Your task to perform on an android device: Show me popular games on the Play Store Image 0: 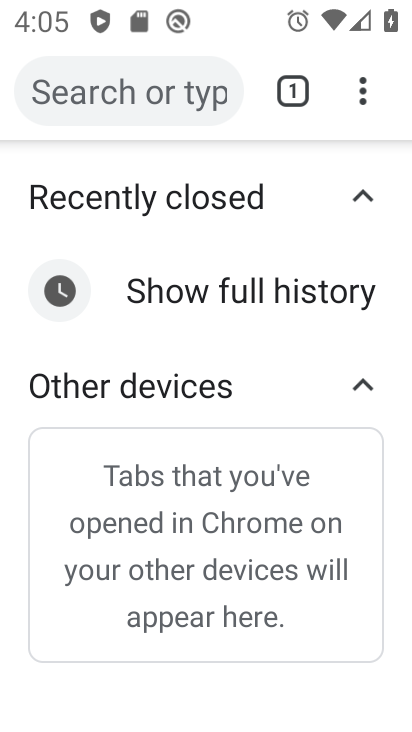
Step 0: press home button
Your task to perform on an android device: Show me popular games on the Play Store Image 1: 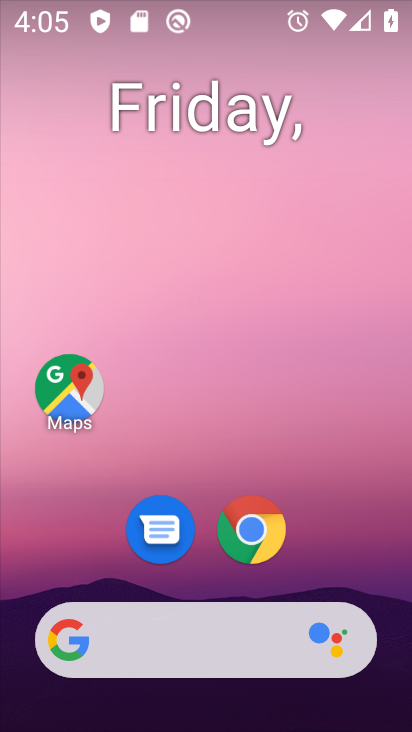
Step 1: drag from (134, 598) to (219, 135)
Your task to perform on an android device: Show me popular games on the Play Store Image 2: 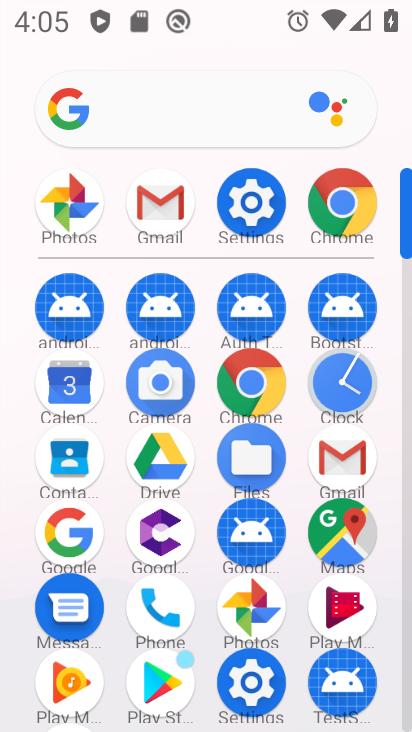
Step 2: drag from (169, 609) to (223, 321)
Your task to perform on an android device: Show me popular games on the Play Store Image 3: 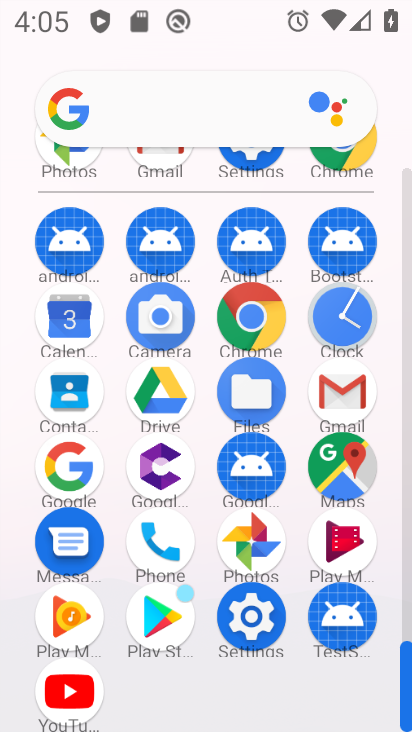
Step 3: click (167, 625)
Your task to perform on an android device: Show me popular games on the Play Store Image 4: 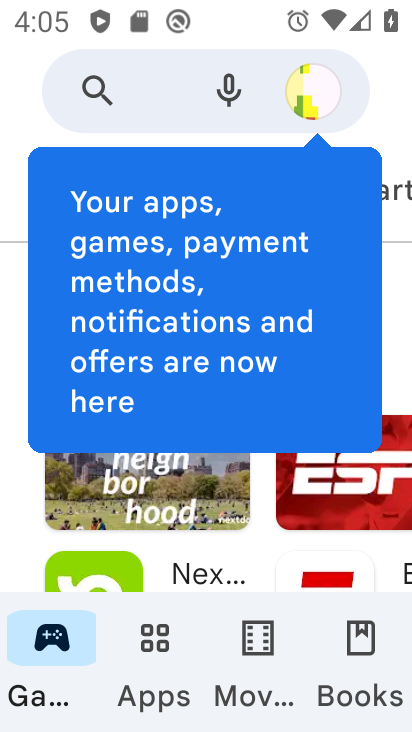
Step 4: drag from (203, 570) to (384, 166)
Your task to perform on an android device: Show me popular games on the Play Store Image 5: 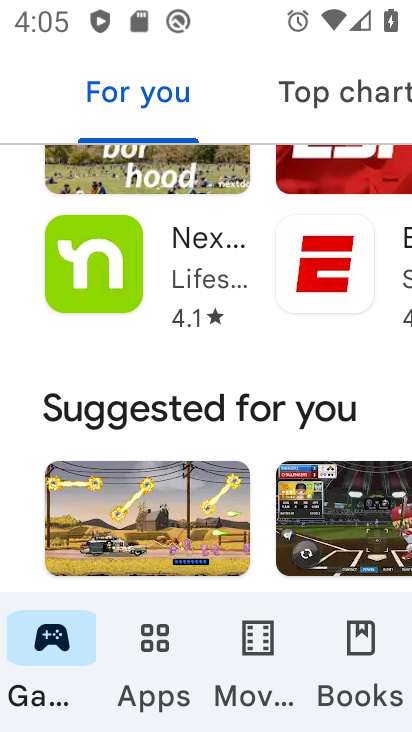
Step 5: drag from (249, 508) to (408, 160)
Your task to perform on an android device: Show me popular games on the Play Store Image 6: 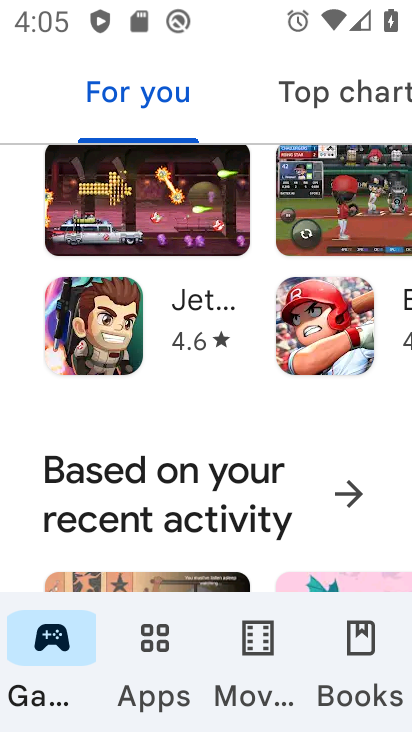
Step 6: drag from (243, 528) to (375, 103)
Your task to perform on an android device: Show me popular games on the Play Store Image 7: 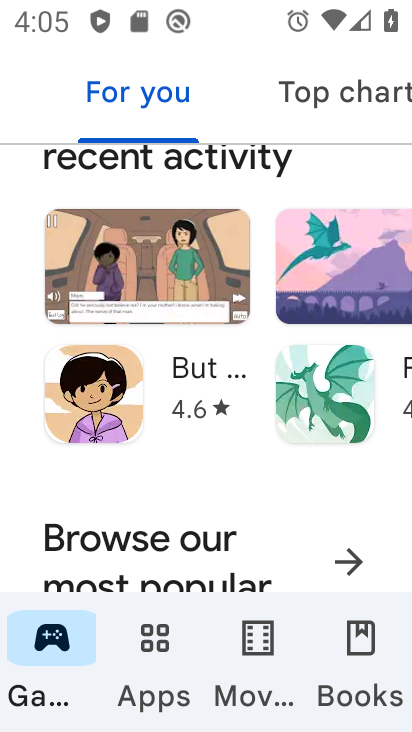
Step 7: drag from (220, 524) to (331, 204)
Your task to perform on an android device: Show me popular games on the Play Store Image 8: 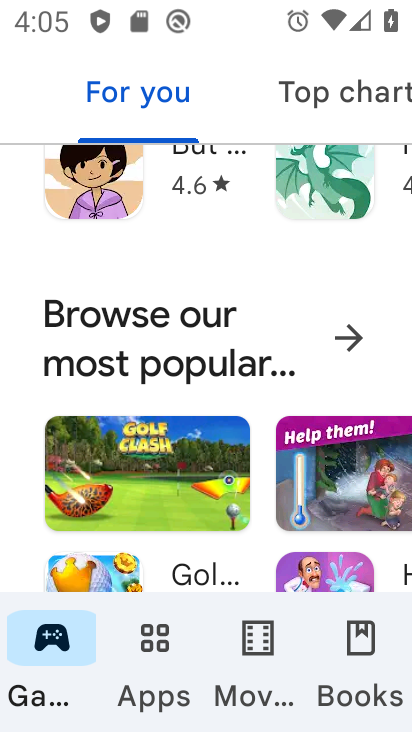
Step 8: click (339, 345)
Your task to perform on an android device: Show me popular games on the Play Store Image 9: 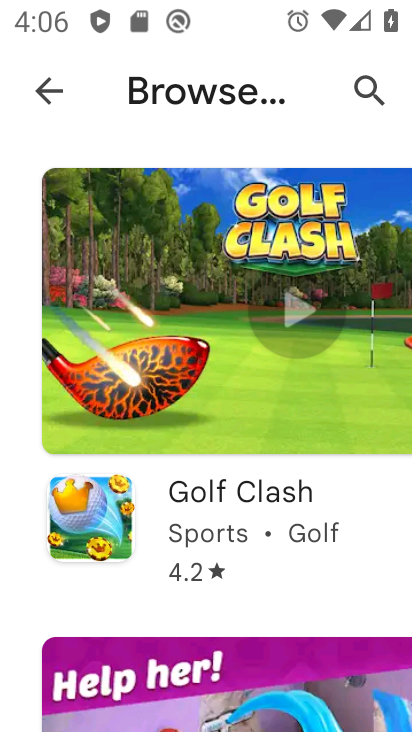
Step 9: task complete